Your task to perform on an android device: Go to Wikipedia Image 0: 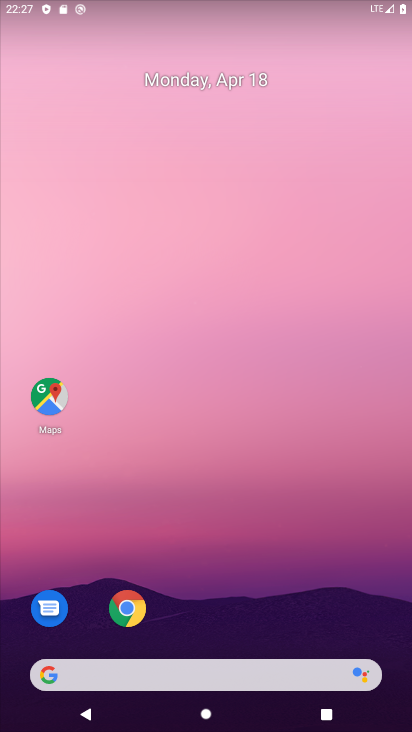
Step 0: click (133, 613)
Your task to perform on an android device: Go to Wikipedia Image 1: 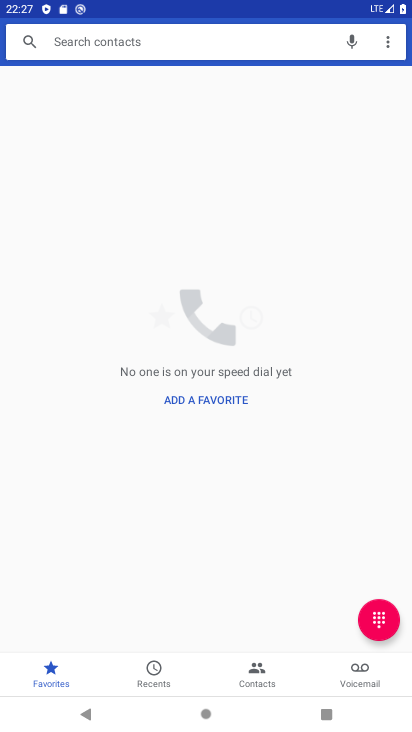
Step 1: press home button
Your task to perform on an android device: Go to Wikipedia Image 2: 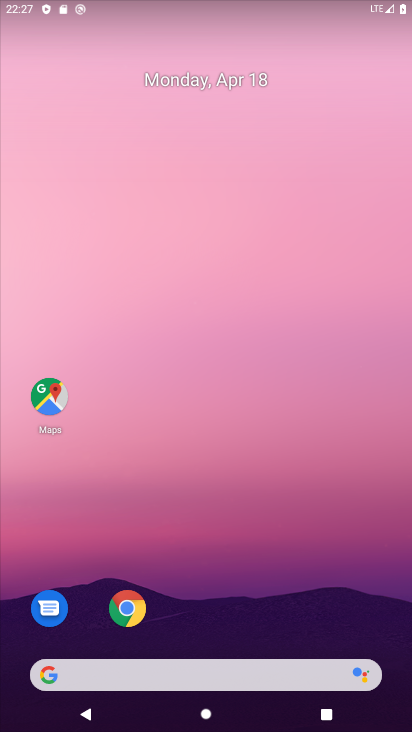
Step 2: click (127, 614)
Your task to perform on an android device: Go to Wikipedia Image 3: 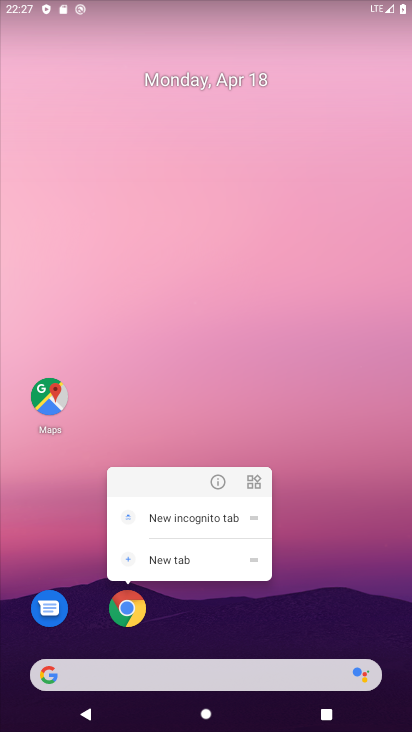
Step 3: click (131, 613)
Your task to perform on an android device: Go to Wikipedia Image 4: 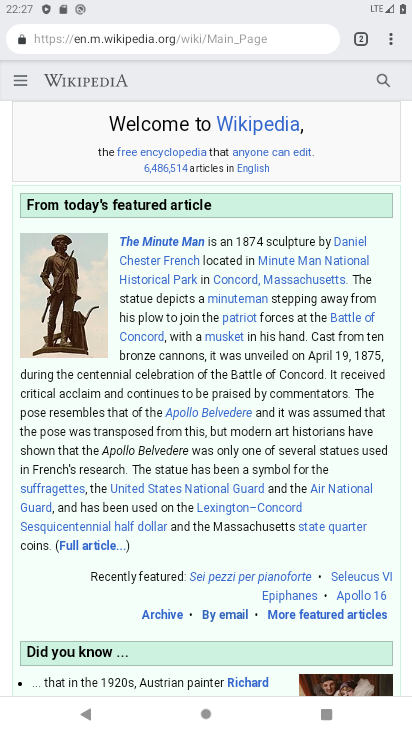
Step 4: task complete